Your task to perform on an android device: Empty the shopping cart on newegg. Search for macbook air on newegg, select the first entry, and add it to the cart. Image 0: 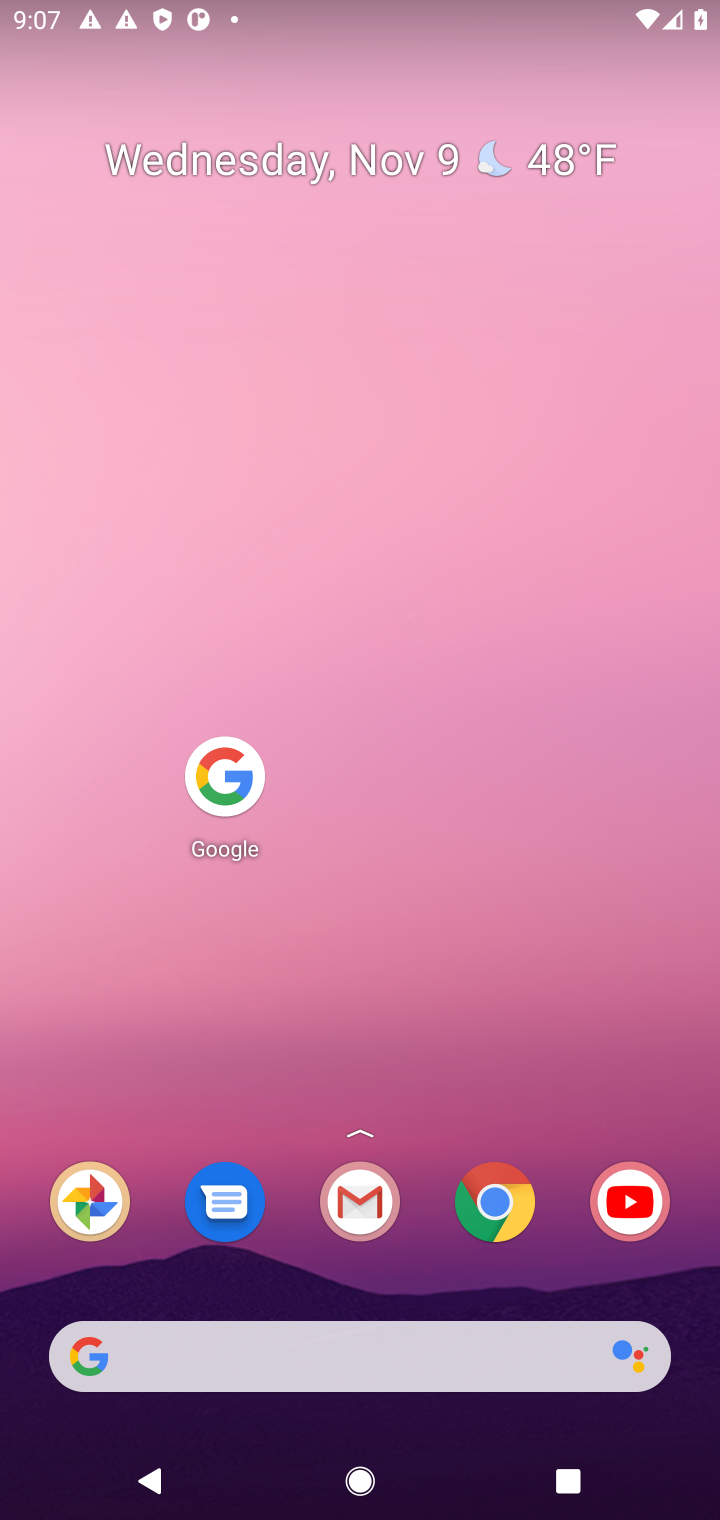
Step 0: click (230, 769)
Your task to perform on an android device: Empty the shopping cart on newegg. Search for macbook air on newegg, select the first entry, and add it to the cart. Image 1: 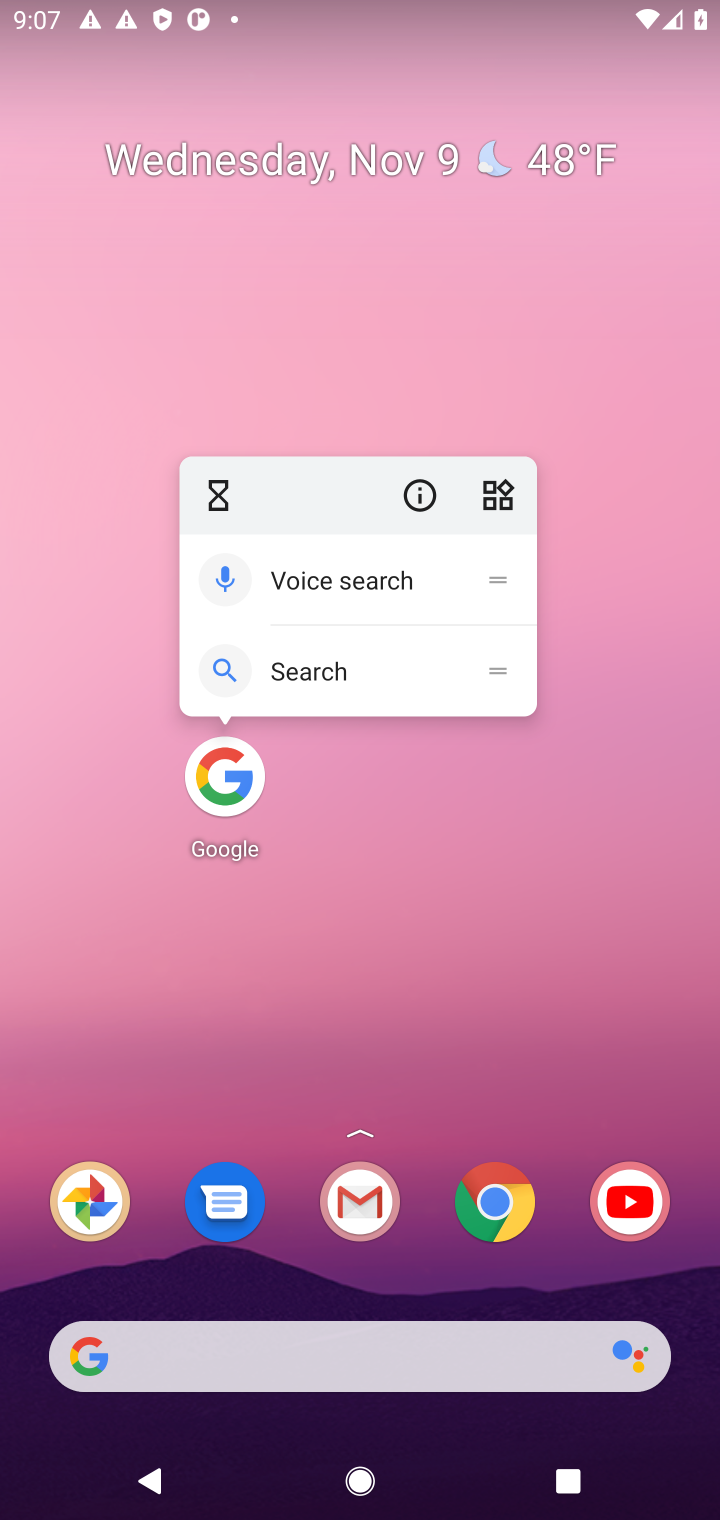
Step 1: click (216, 791)
Your task to perform on an android device: Empty the shopping cart on newegg. Search for macbook air on newegg, select the first entry, and add it to the cart. Image 2: 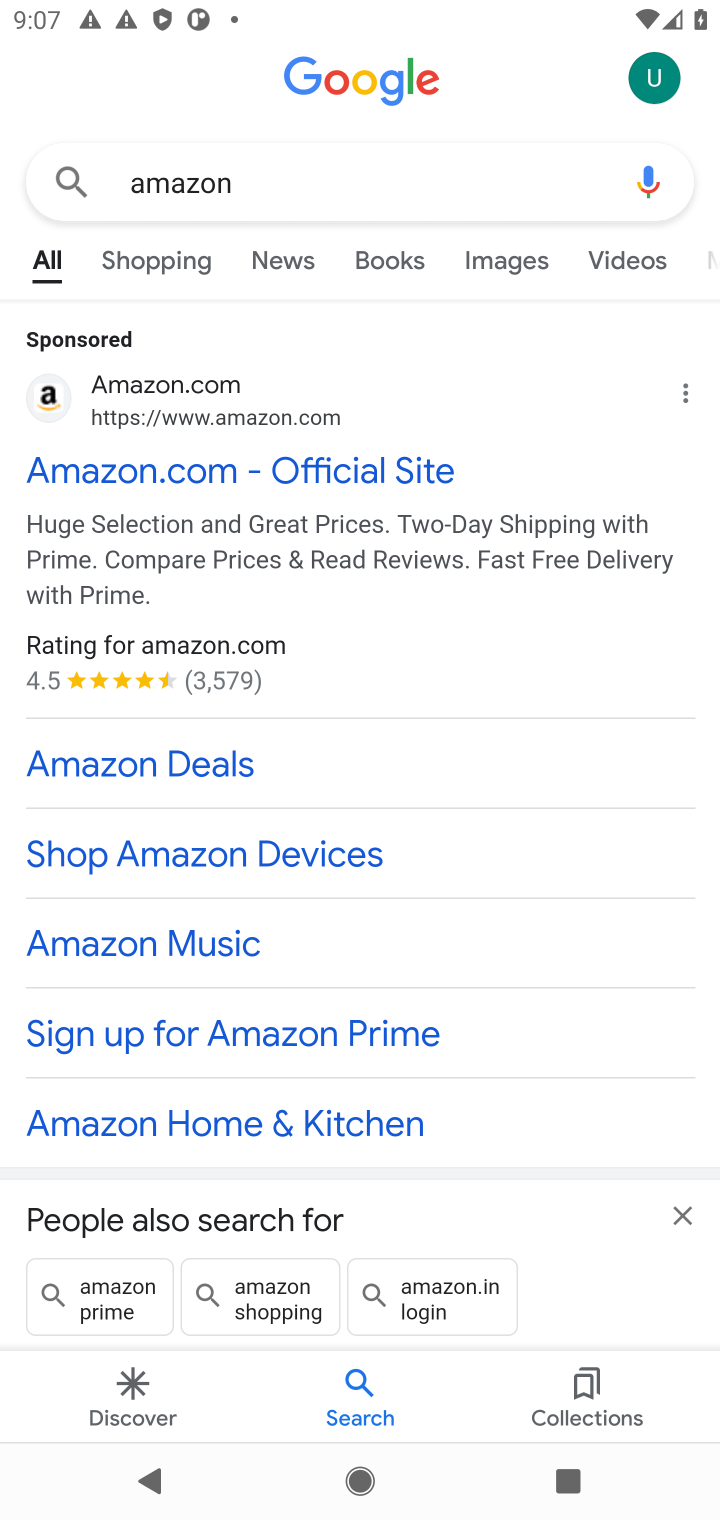
Step 2: click (311, 169)
Your task to perform on an android device: Empty the shopping cart on newegg. Search for macbook air on newegg, select the first entry, and add it to the cart. Image 3: 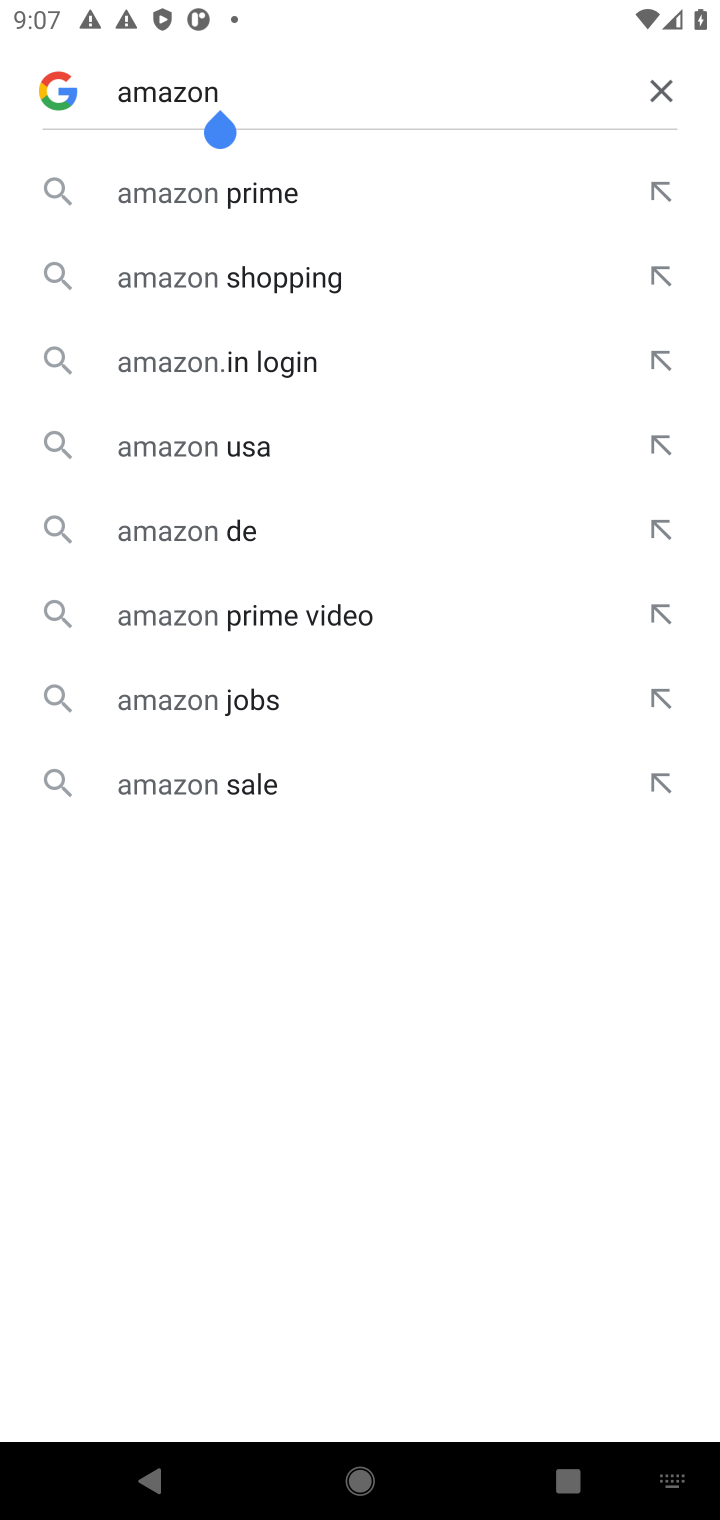
Step 3: click (662, 77)
Your task to perform on an android device: Empty the shopping cart on newegg. Search for macbook air on newegg, select the first entry, and add it to the cart. Image 4: 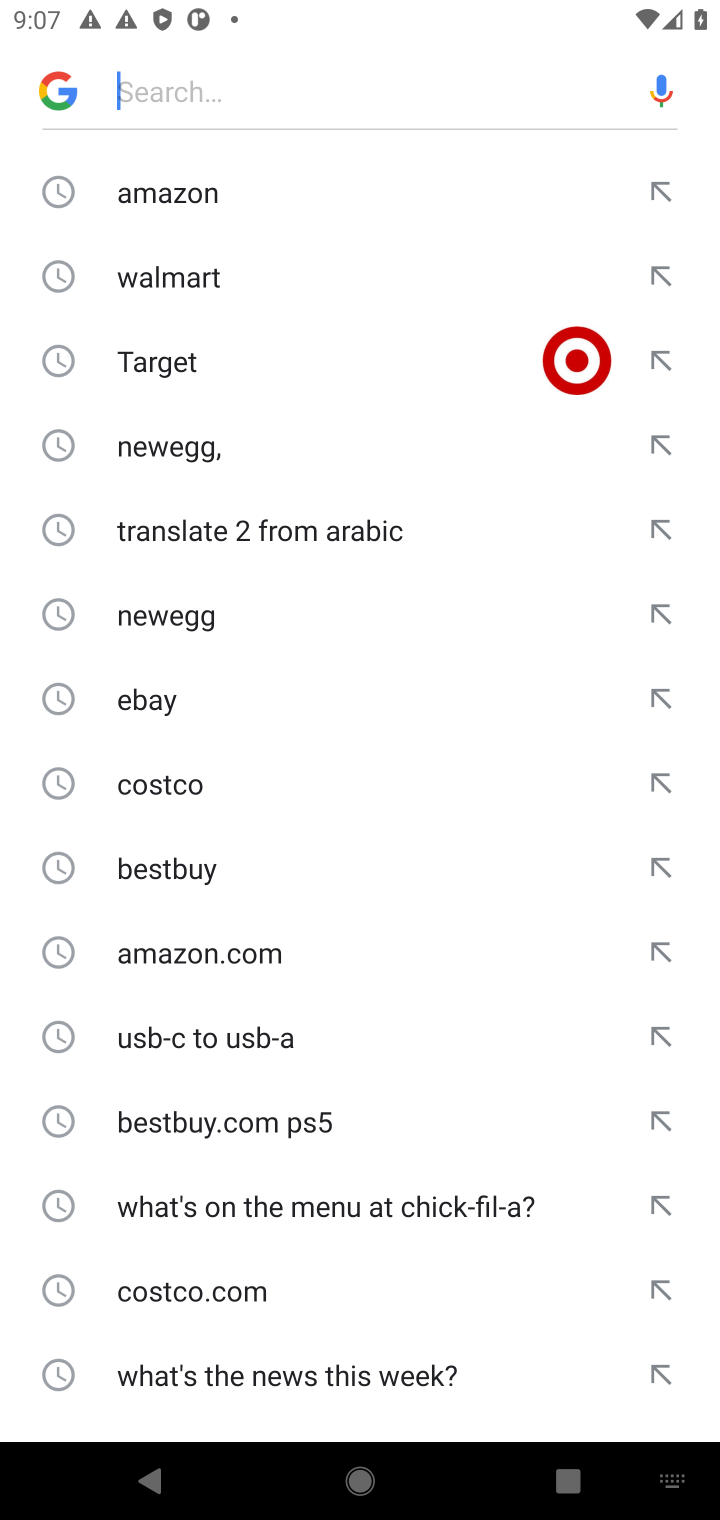
Step 4: click (157, 613)
Your task to perform on an android device: Empty the shopping cart on newegg. Search for macbook air on newegg, select the first entry, and add it to the cart. Image 5: 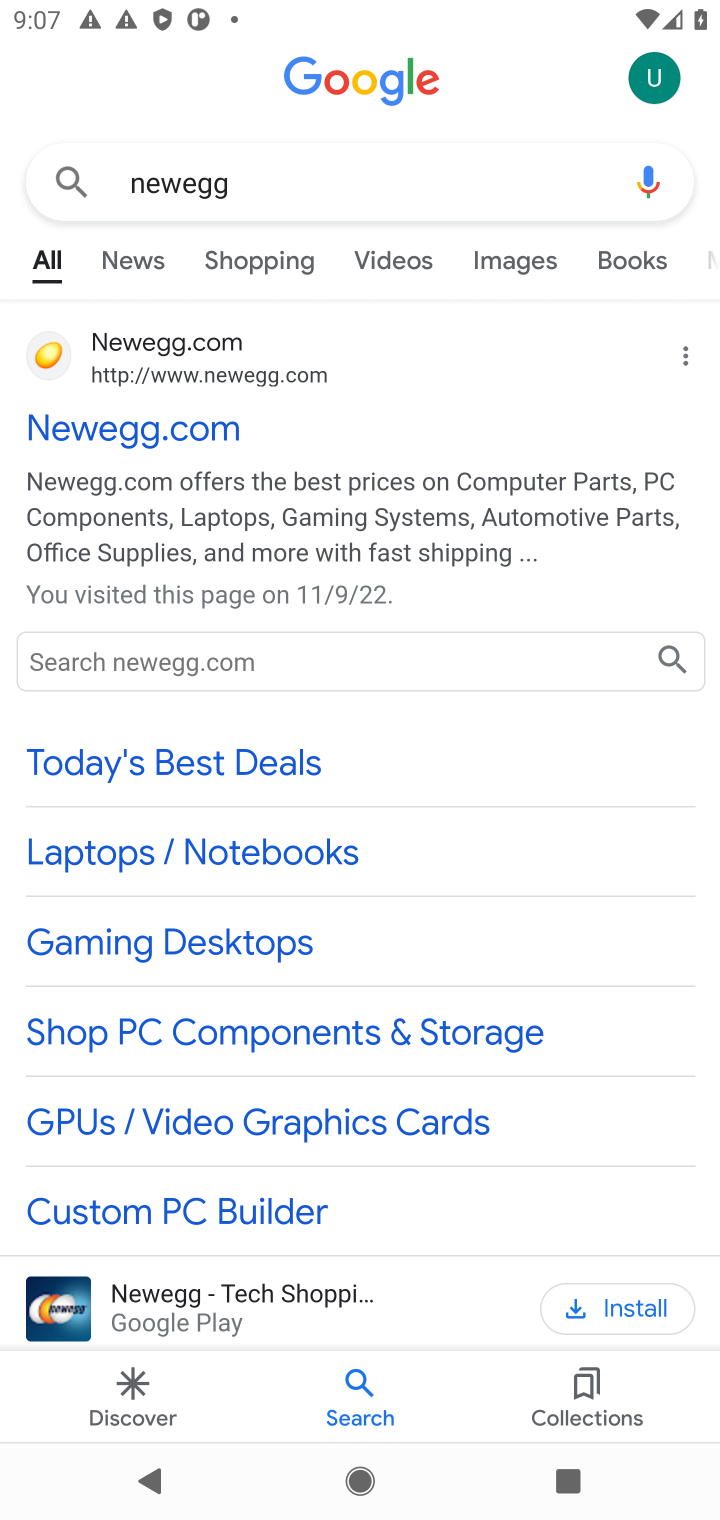
Step 5: click (193, 424)
Your task to perform on an android device: Empty the shopping cart on newegg. Search for macbook air on newegg, select the first entry, and add it to the cart. Image 6: 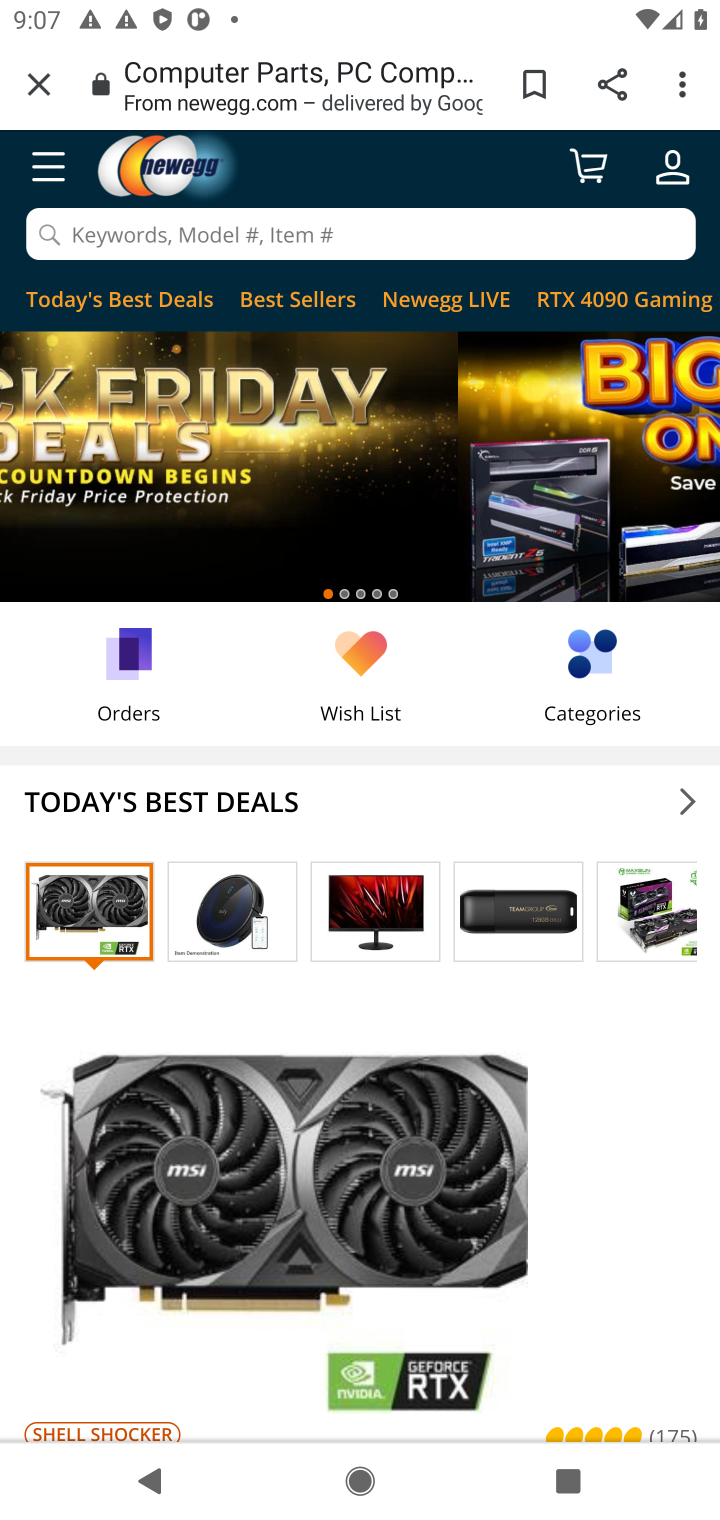
Step 6: click (334, 232)
Your task to perform on an android device: Empty the shopping cart on newegg. Search for macbook air on newegg, select the first entry, and add it to the cart. Image 7: 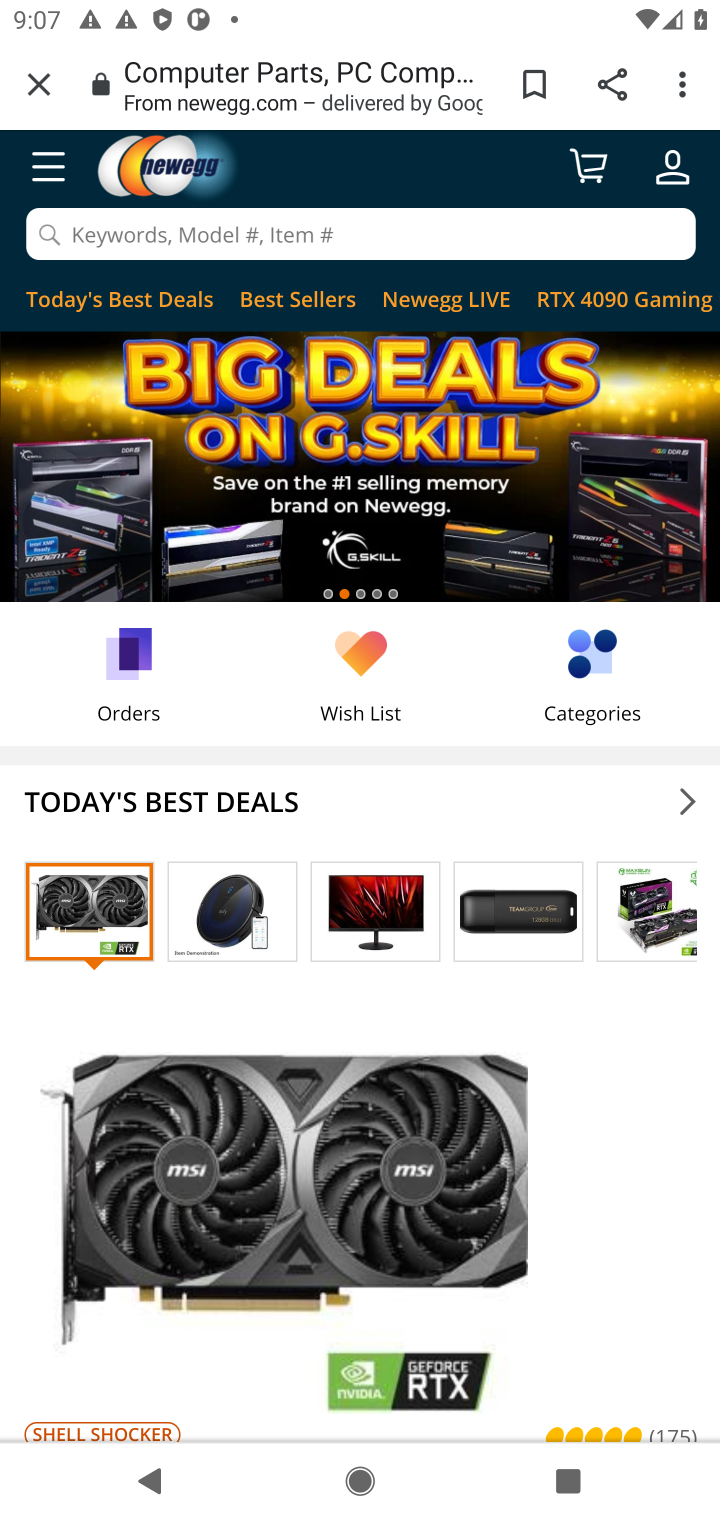
Step 7: click (383, 231)
Your task to perform on an android device: Empty the shopping cart on newegg. Search for macbook air on newegg, select the first entry, and add it to the cart. Image 8: 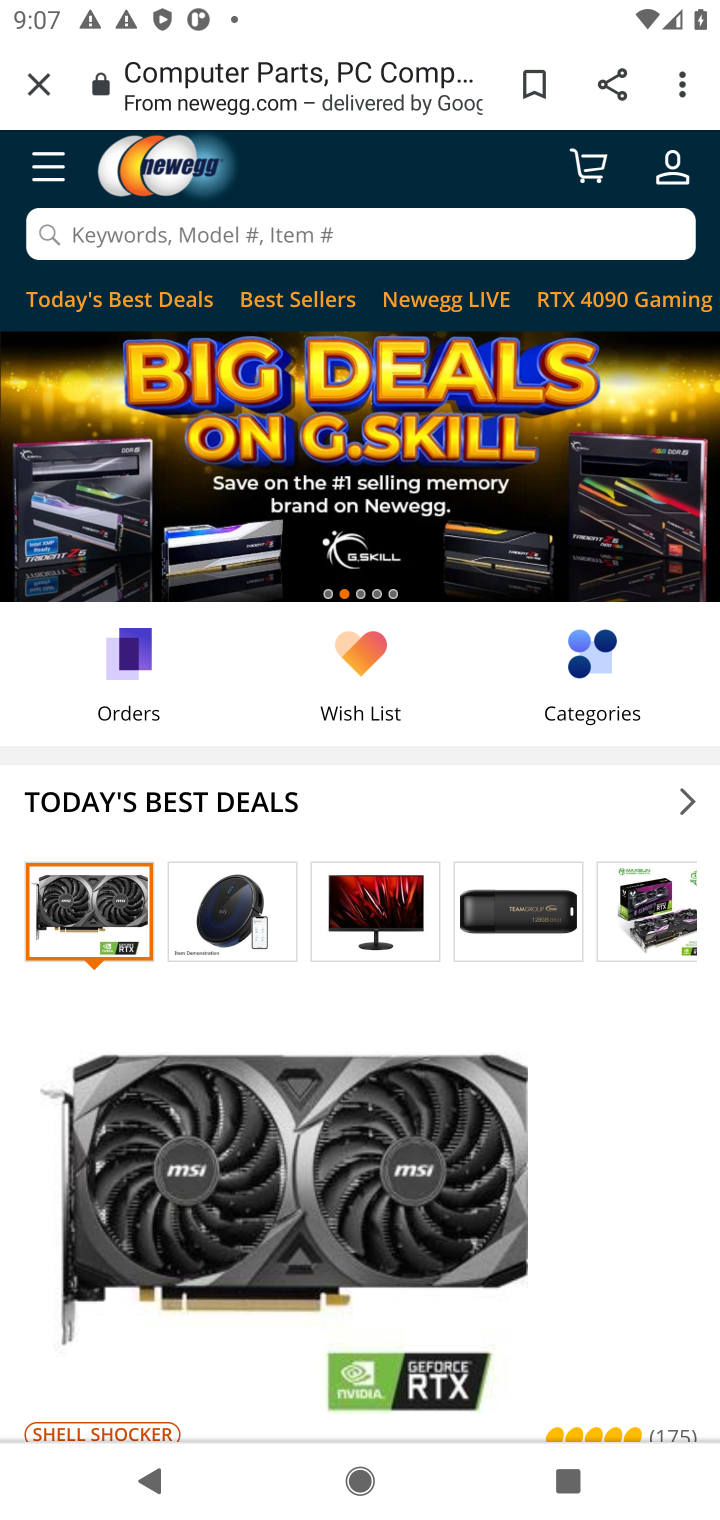
Step 8: click (383, 231)
Your task to perform on an android device: Empty the shopping cart on newegg. Search for macbook air on newegg, select the first entry, and add it to the cart. Image 9: 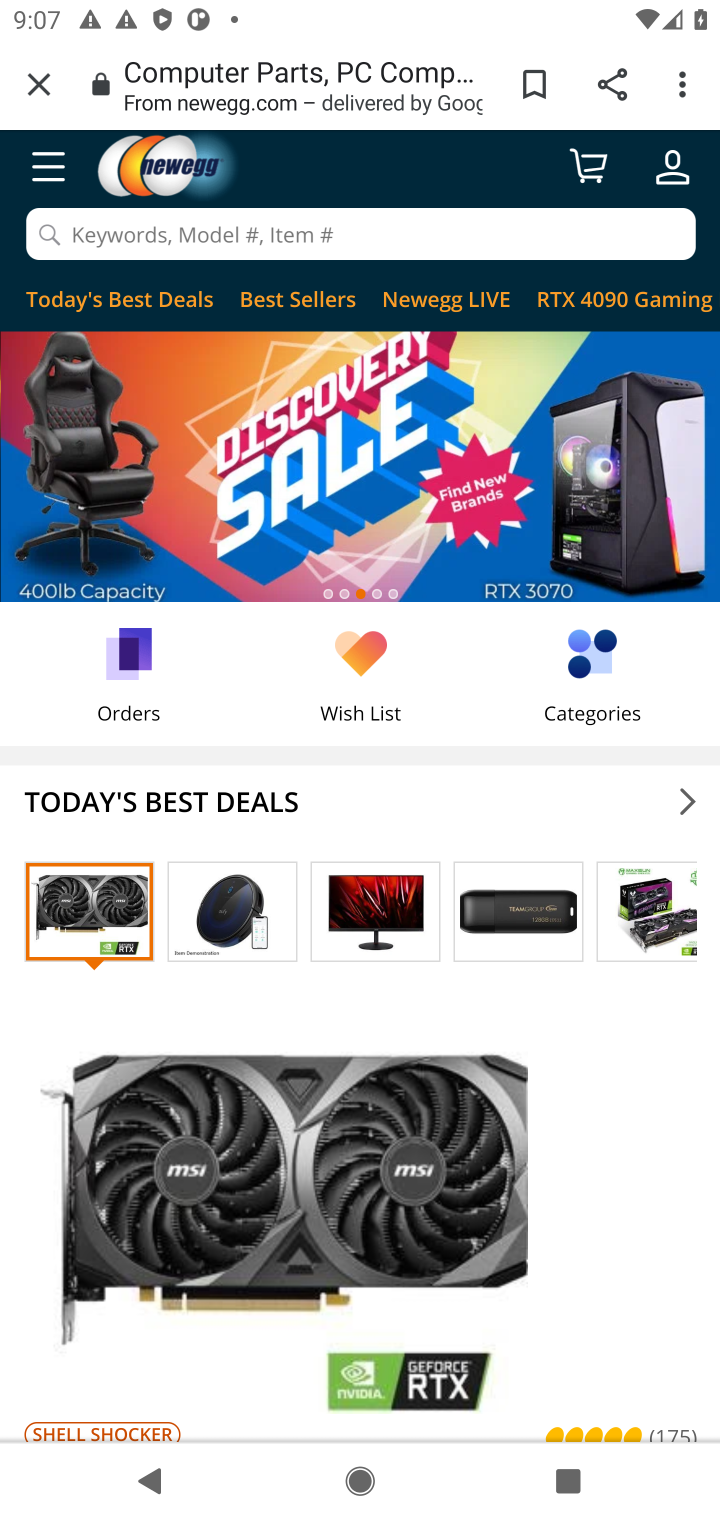
Step 9: click (629, 232)
Your task to perform on an android device: Empty the shopping cart on newegg. Search for macbook air on newegg, select the first entry, and add it to the cart. Image 10: 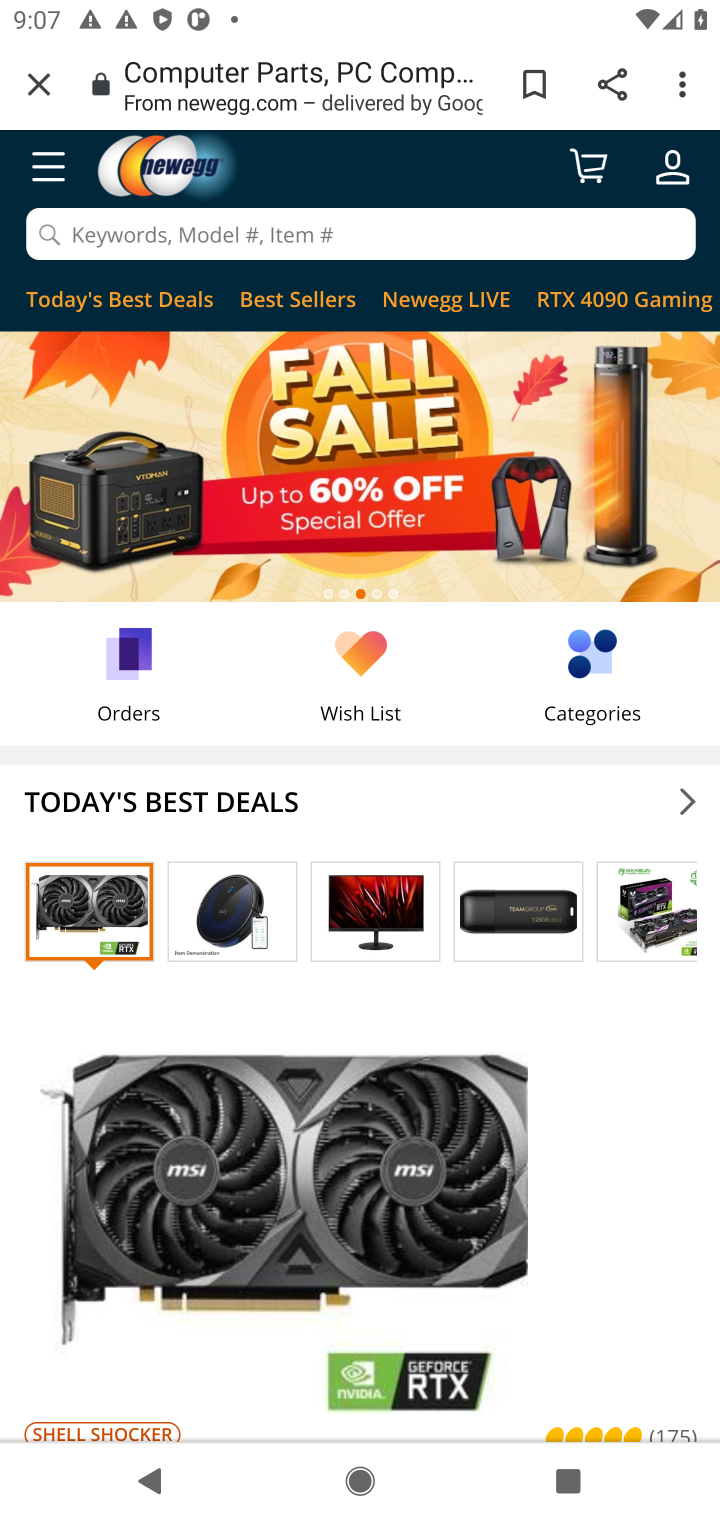
Step 10: click (151, 231)
Your task to perform on an android device: Empty the shopping cart on newegg. Search for macbook air on newegg, select the first entry, and add it to the cart. Image 11: 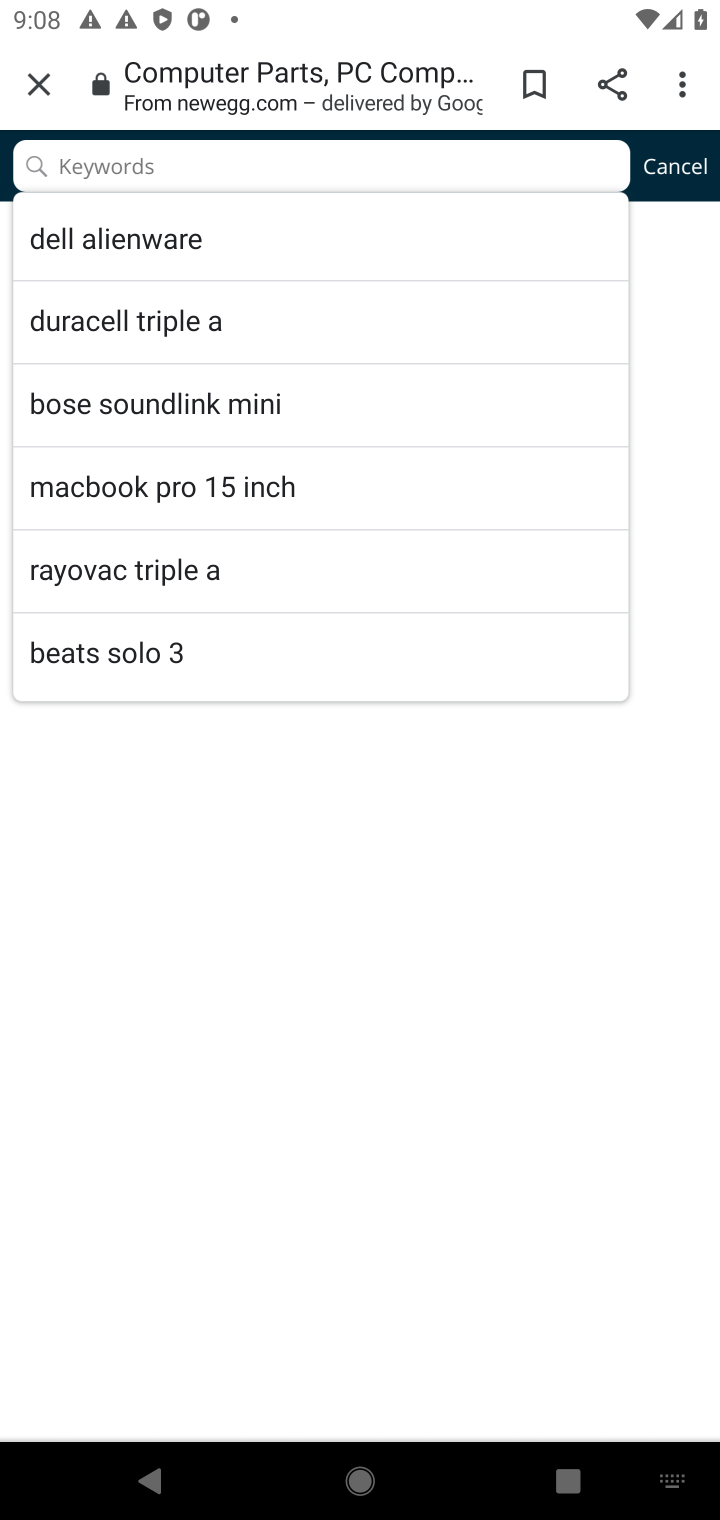
Step 11: type "macbook air"
Your task to perform on an android device: Empty the shopping cart on newegg. Search for macbook air on newegg, select the first entry, and add it to the cart. Image 12: 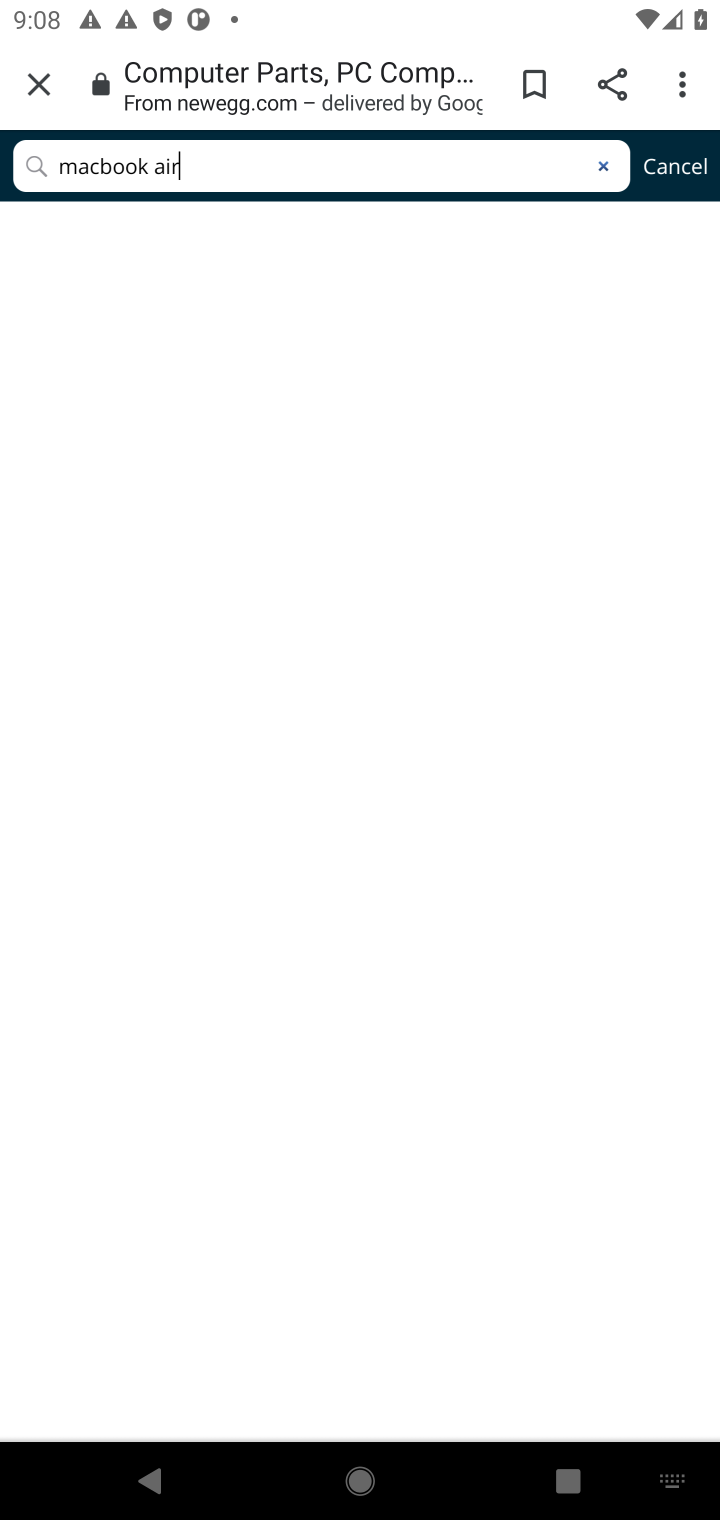
Step 12: press enter
Your task to perform on an android device: Empty the shopping cart on newegg. Search for macbook air on newegg, select the first entry, and add it to the cart. Image 13: 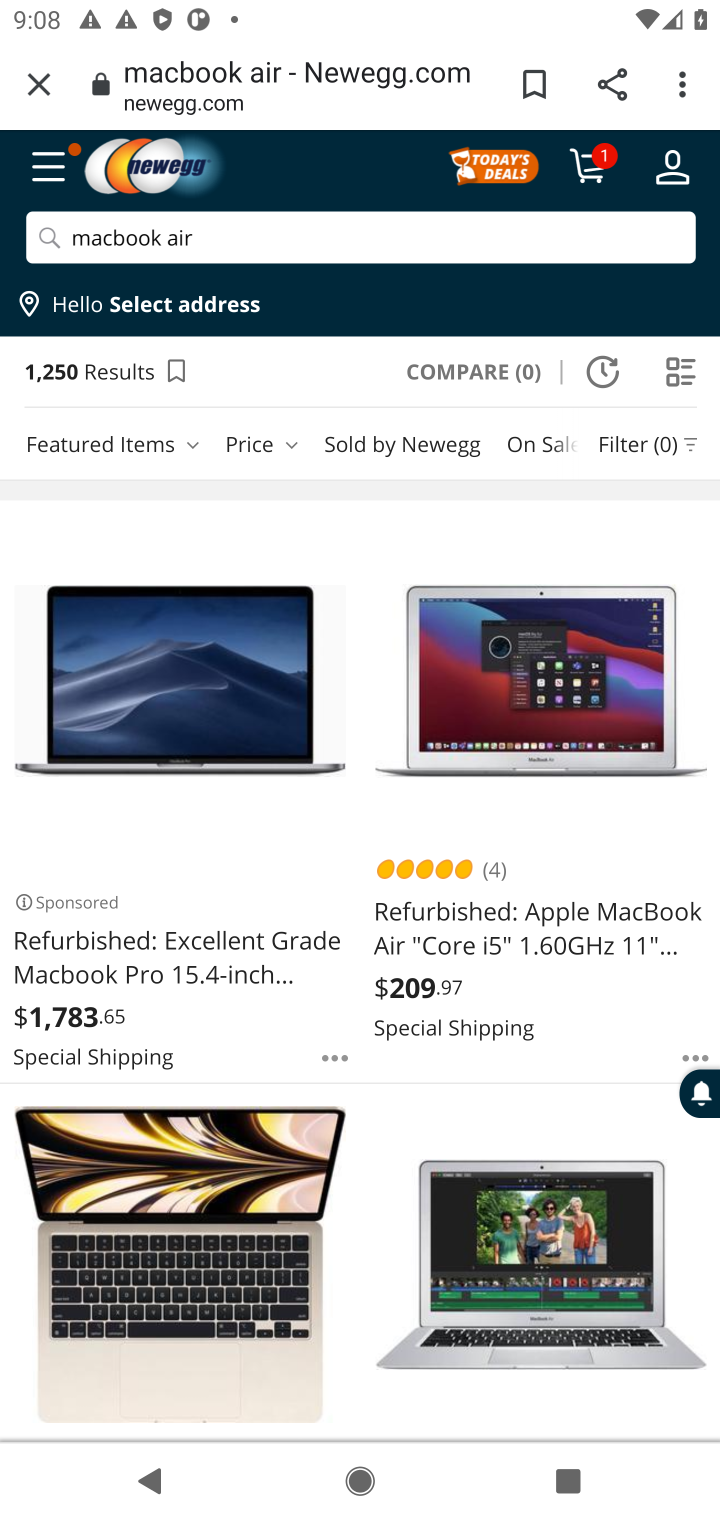
Step 13: task complete